Your task to perform on an android device: Search for Italian restaurants on Maps Image 0: 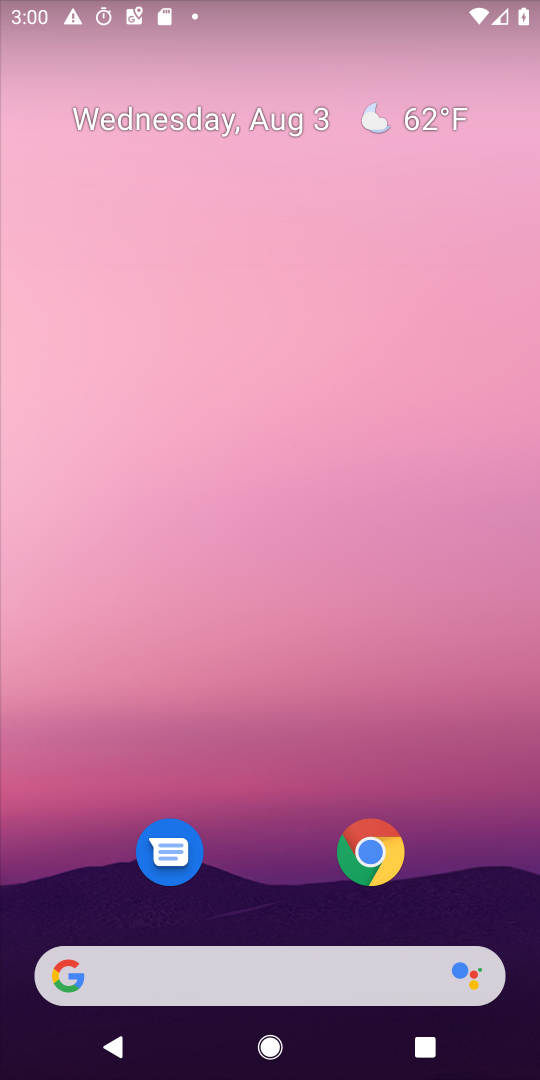
Step 0: drag from (495, 920) to (208, 0)
Your task to perform on an android device: Search for Italian restaurants on Maps Image 1: 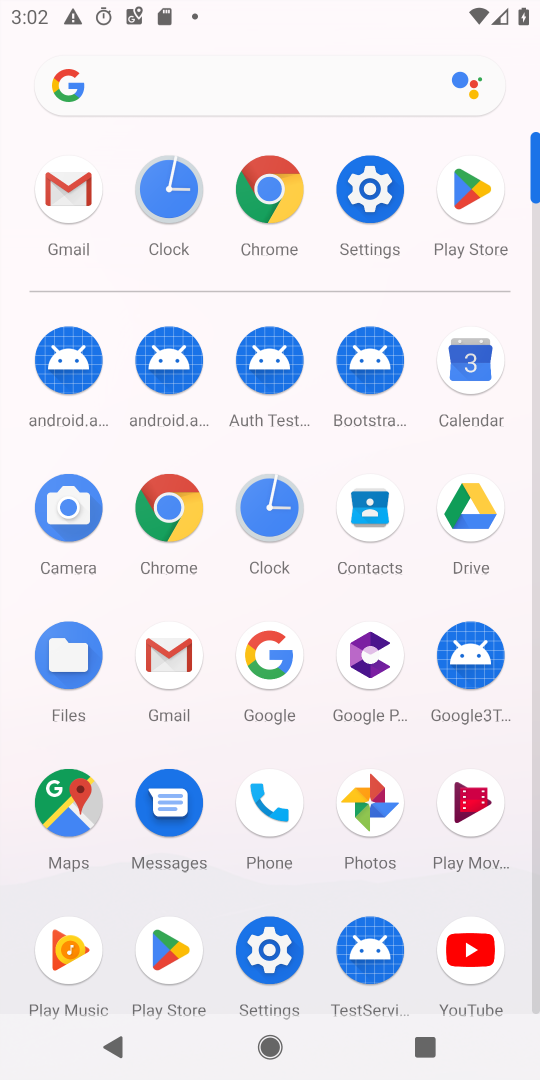
Step 1: click (78, 826)
Your task to perform on an android device: Search for Italian restaurants on Maps Image 2: 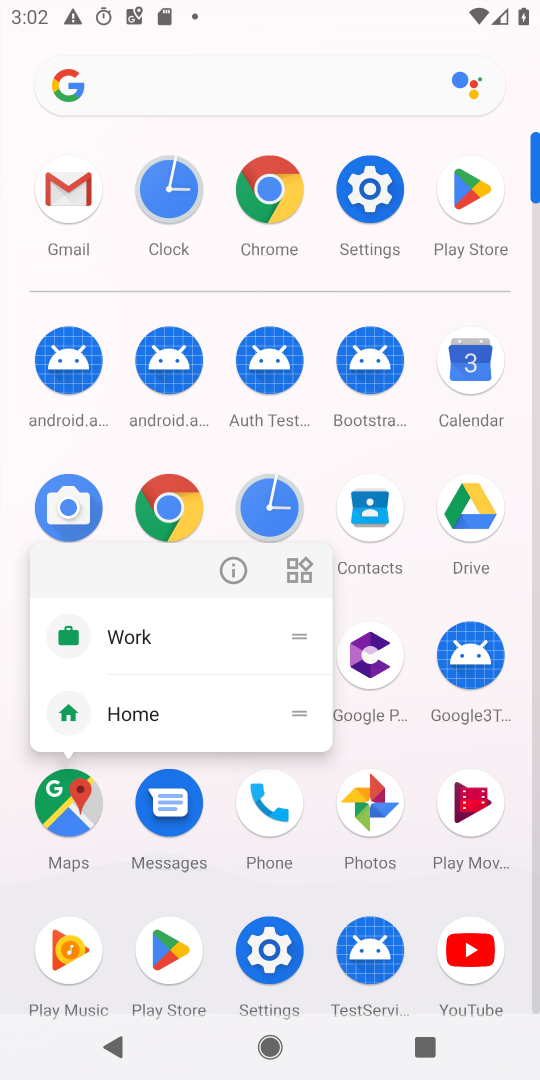
Step 2: click (78, 826)
Your task to perform on an android device: Search for Italian restaurants on Maps Image 3: 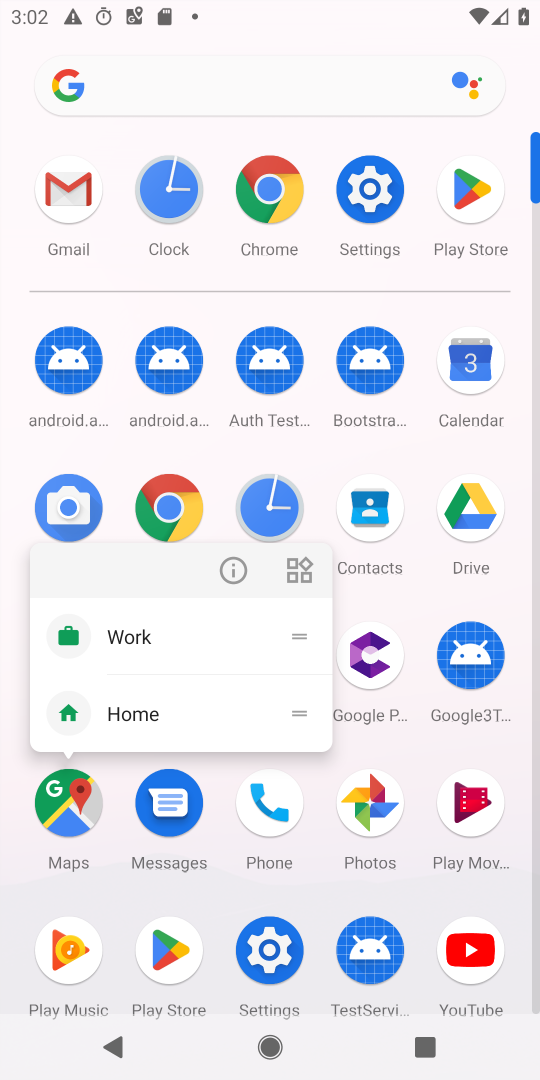
Step 3: click (55, 809)
Your task to perform on an android device: Search for Italian restaurants on Maps Image 4: 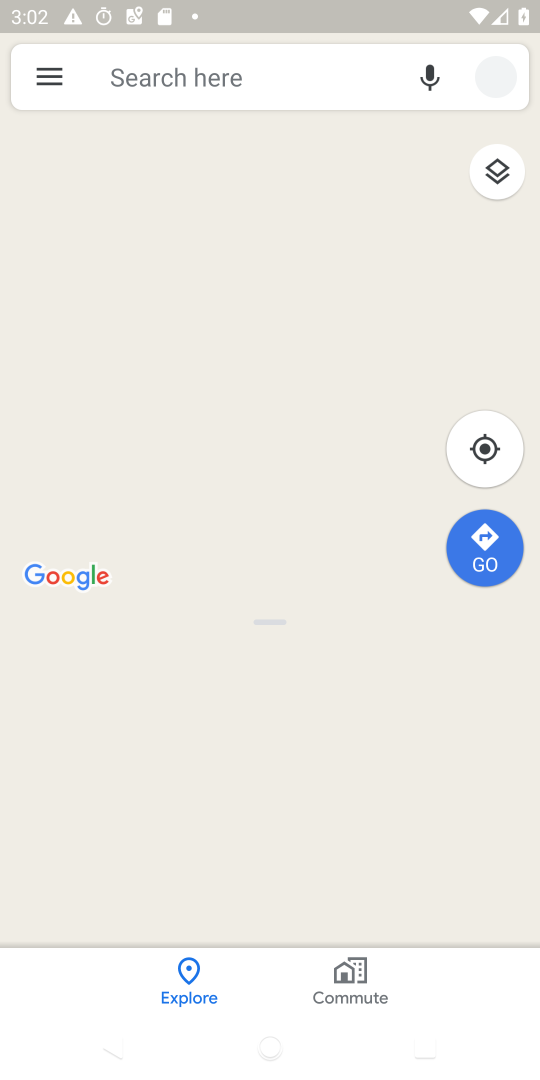
Step 4: click (199, 76)
Your task to perform on an android device: Search for Italian restaurants on Maps Image 5: 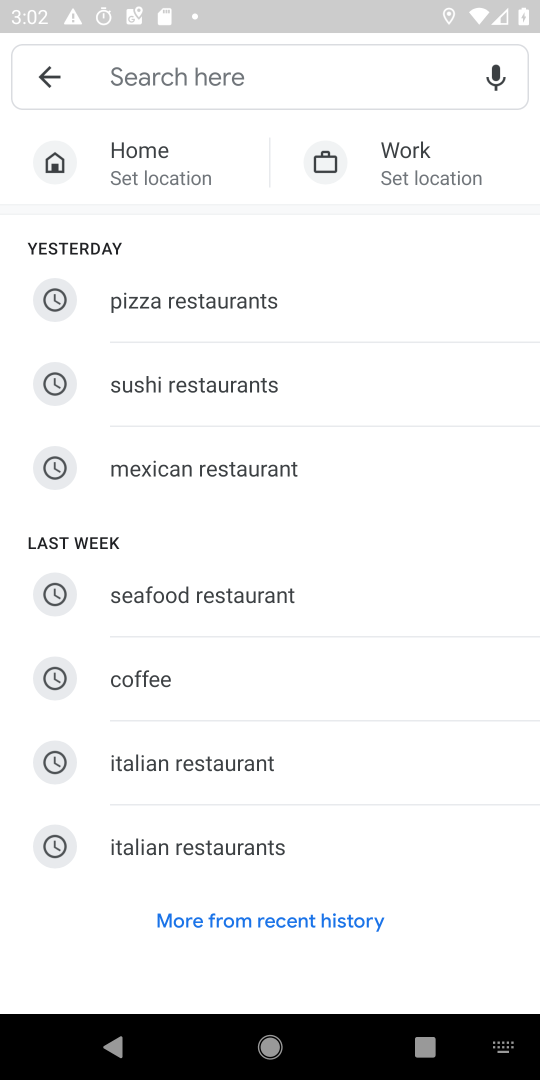
Step 5: click (190, 89)
Your task to perform on an android device: Search for Italian restaurants on Maps Image 6: 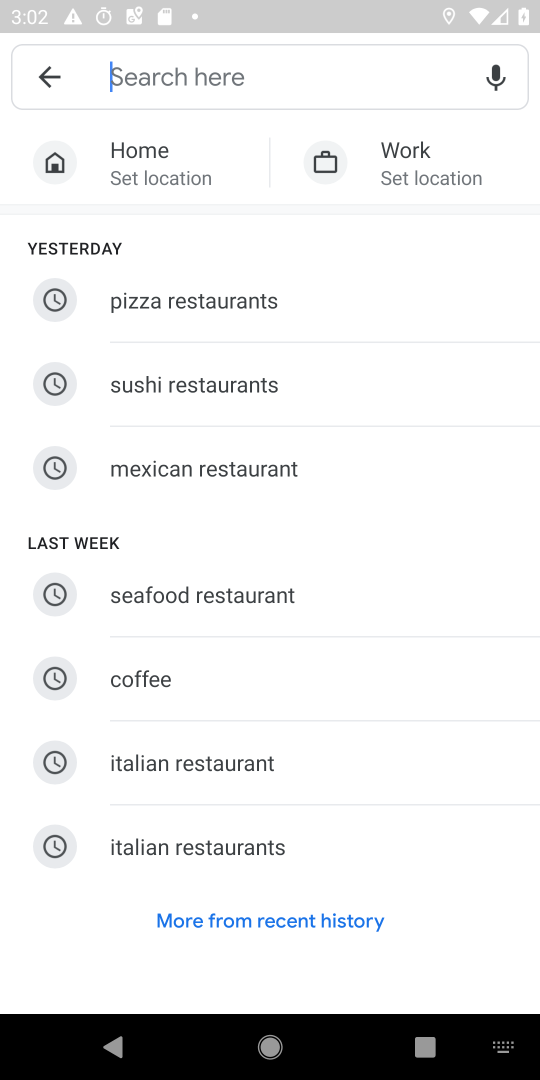
Step 6: type "Italian restaurants"
Your task to perform on an android device: Search for Italian restaurants on Maps Image 7: 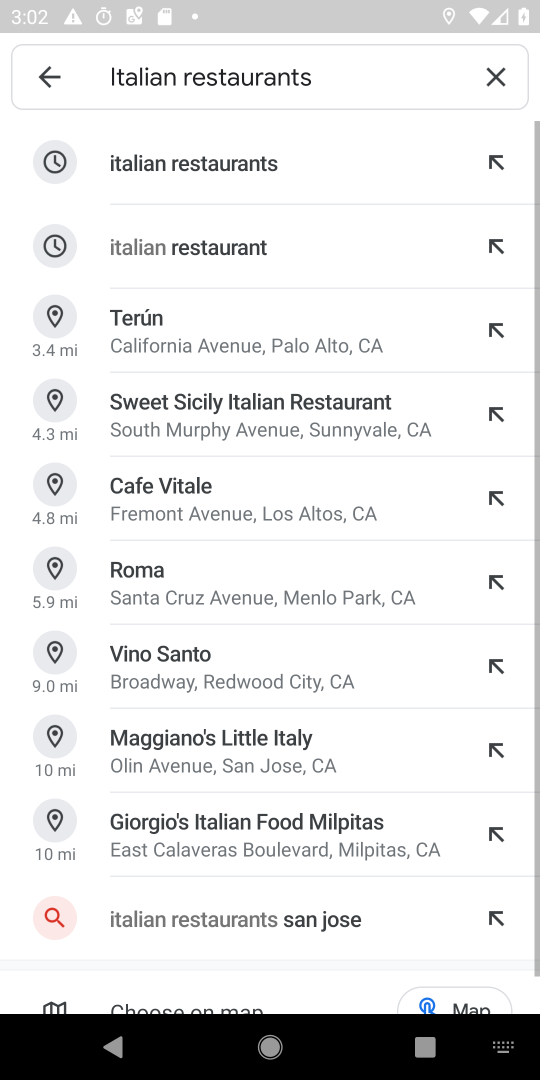
Step 7: click (212, 165)
Your task to perform on an android device: Search for Italian restaurants on Maps Image 8: 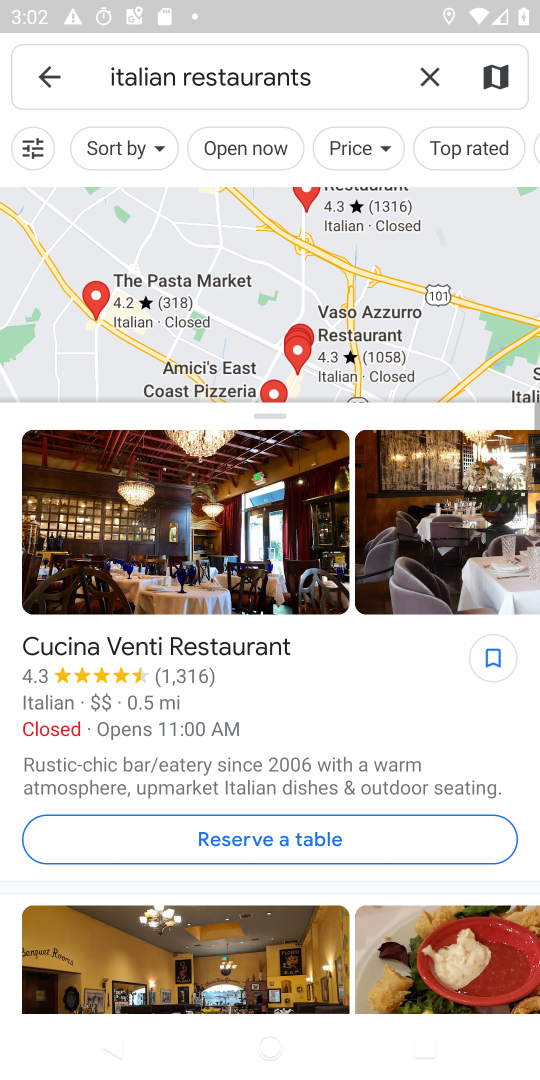
Step 8: task complete